Your task to perform on an android device: Open the web browser Image 0: 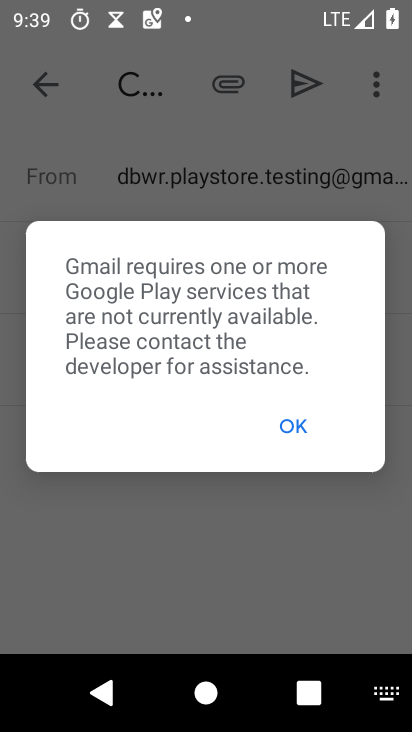
Step 0: press home button
Your task to perform on an android device: Open the web browser Image 1: 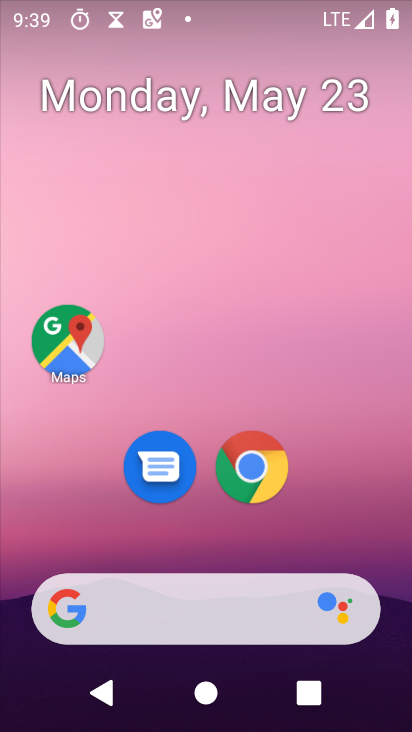
Step 1: click (247, 456)
Your task to perform on an android device: Open the web browser Image 2: 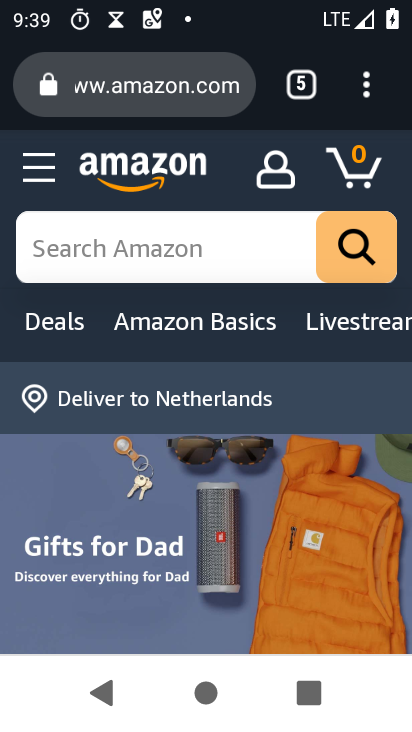
Step 2: task complete